Your task to perform on an android device: toggle wifi Image 0: 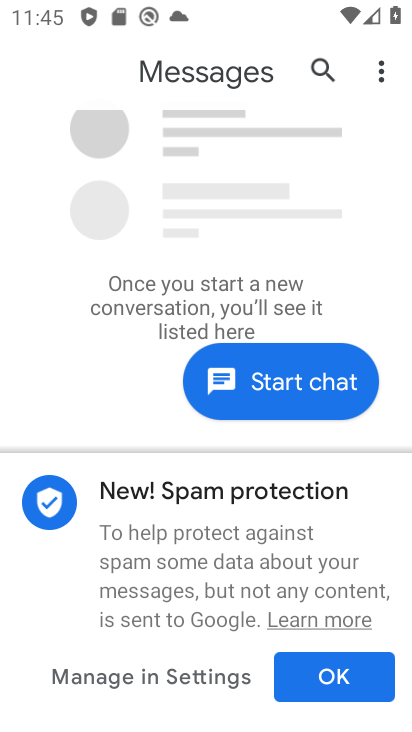
Step 0: press home button
Your task to perform on an android device: toggle wifi Image 1: 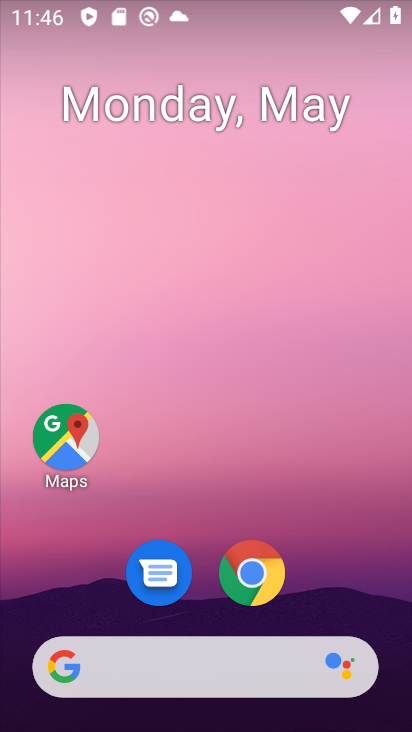
Step 1: drag from (350, 559) to (256, 27)
Your task to perform on an android device: toggle wifi Image 2: 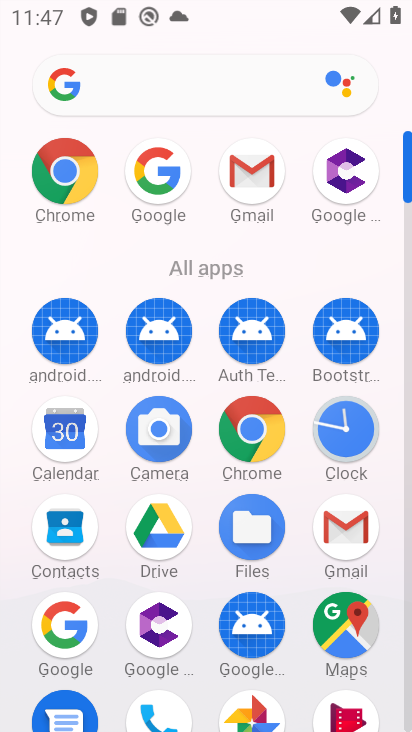
Step 2: drag from (396, 532) to (411, 264)
Your task to perform on an android device: toggle wifi Image 3: 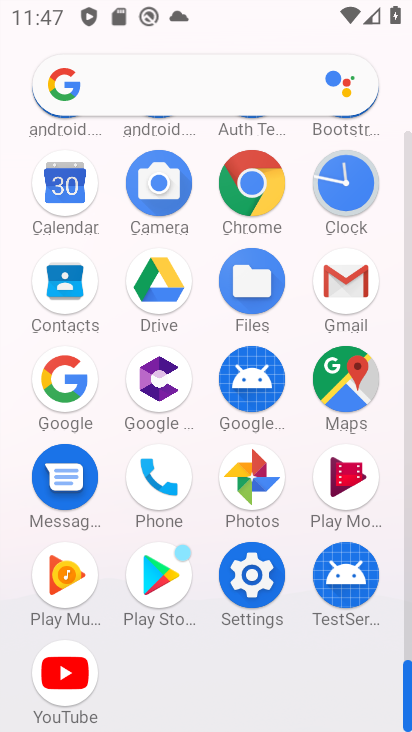
Step 3: click (231, 570)
Your task to perform on an android device: toggle wifi Image 4: 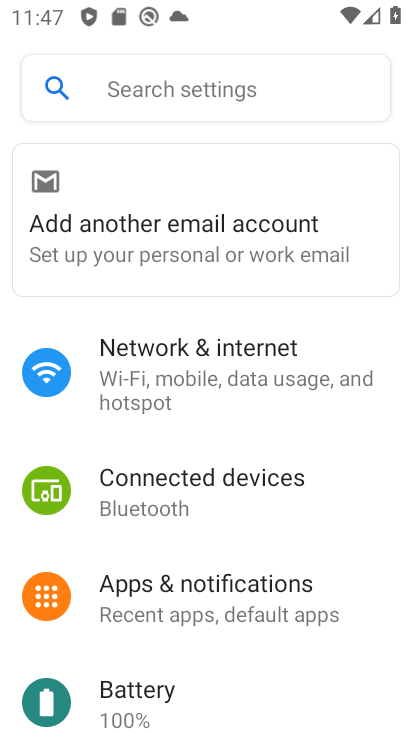
Step 4: click (194, 366)
Your task to perform on an android device: toggle wifi Image 5: 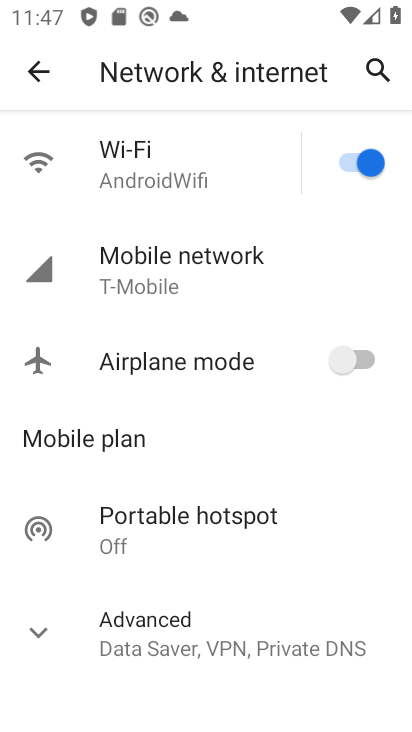
Step 5: click (180, 183)
Your task to perform on an android device: toggle wifi Image 6: 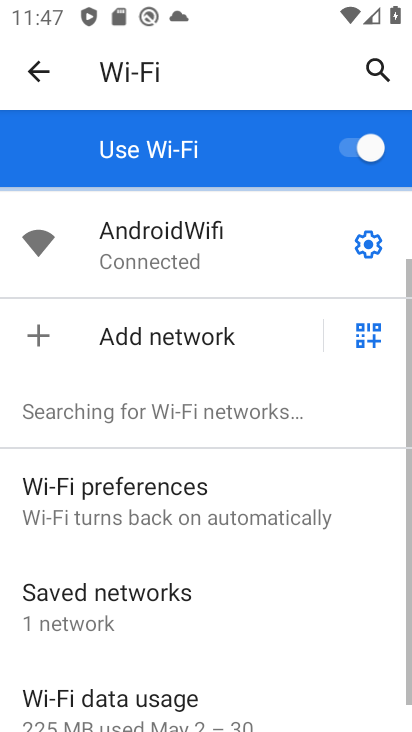
Step 6: task complete